Your task to perform on an android device: turn off notifications in google photos Image 0: 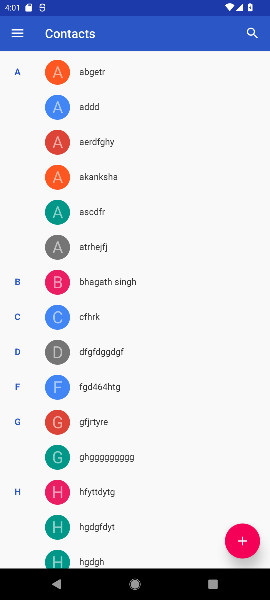
Step 0: press home button
Your task to perform on an android device: turn off notifications in google photos Image 1: 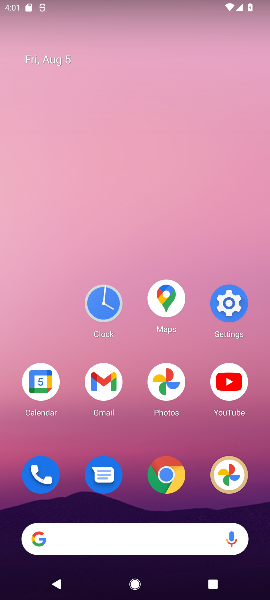
Step 1: click (246, 468)
Your task to perform on an android device: turn off notifications in google photos Image 2: 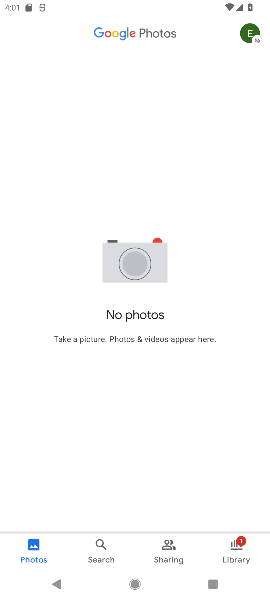
Step 2: task complete